Your task to perform on an android device: turn on sleep mode Image 0: 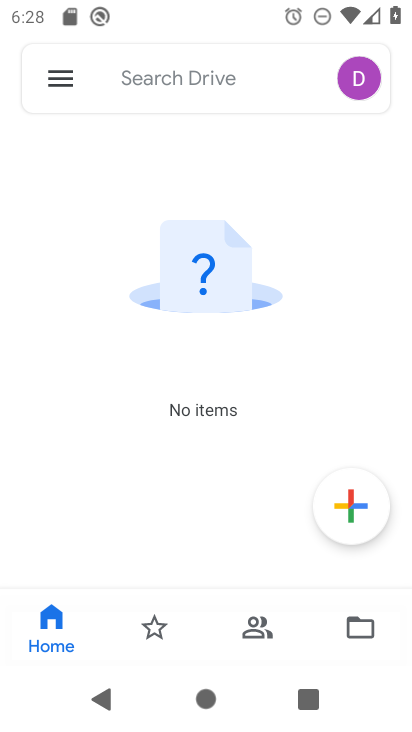
Step 0: press home button
Your task to perform on an android device: turn on sleep mode Image 1: 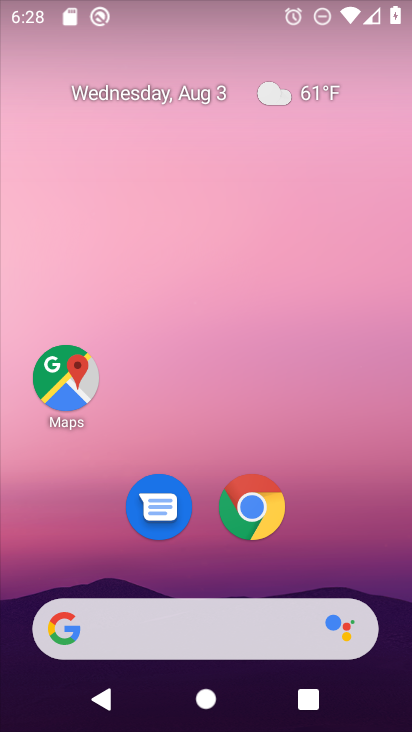
Step 1: drag from (343, 538) to (245, 0)
Your task to perform on an android device: turn on sleep mode Image 2: 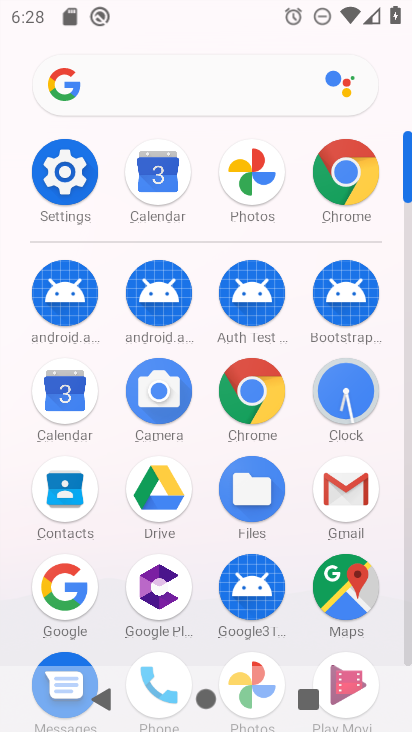
Step 2: click (53, 161)
Your task to perform on an android device: turn on sleep mode Image 3: 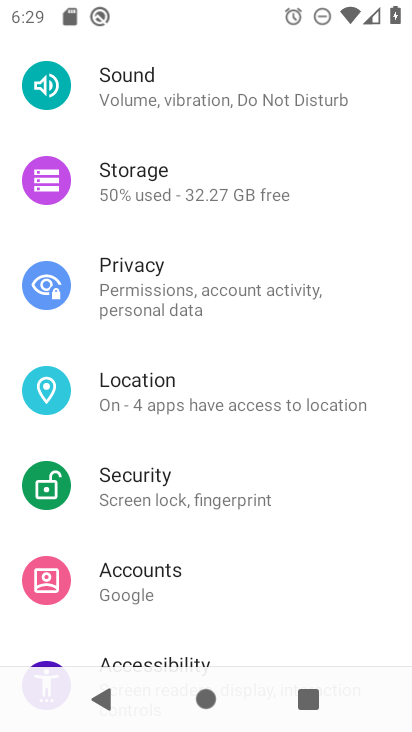
Step 3: drag from (210, 139) to (238, 472)
Your task to perform on an android device: turn on sleep mode Image 4: 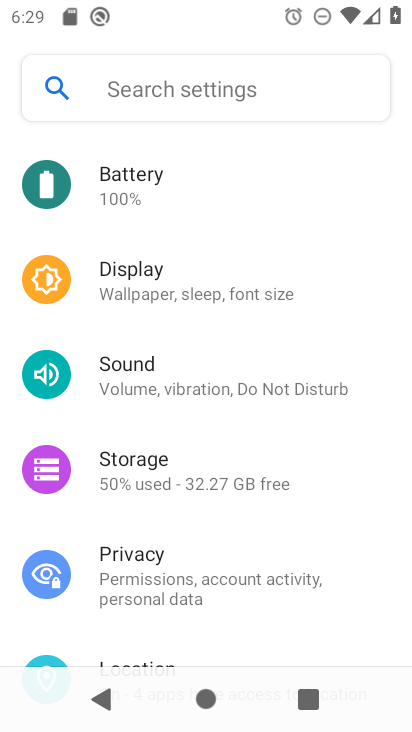
Step 4: click (182, 291)
Your task to perform on an android device: turn on sleep mode Image 5: 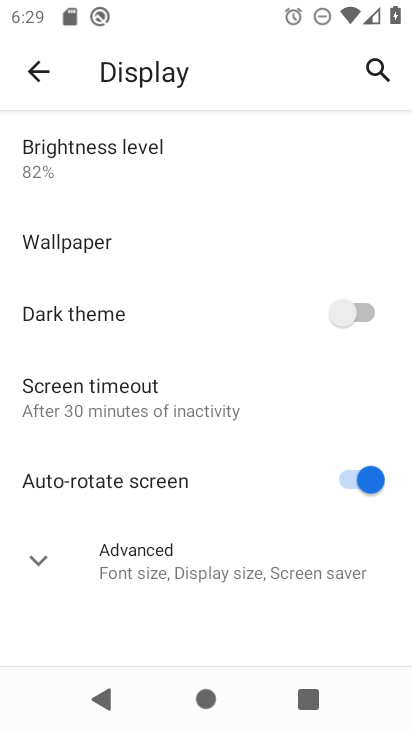
Step 5: click (145, 402)
Your task to perform on an android device: turn on sleep mode Image 6: 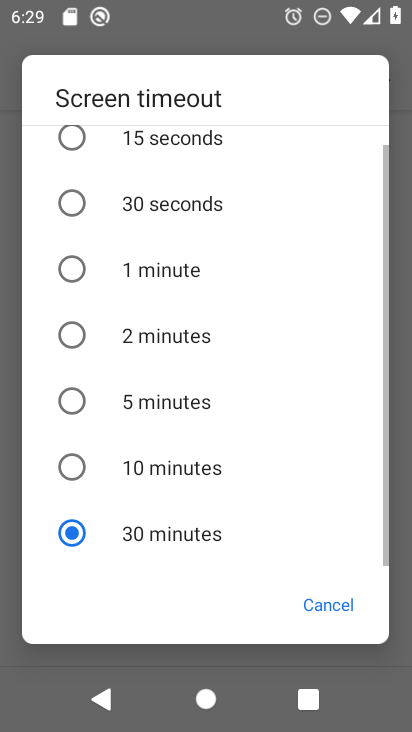
Step 6: task complete